Your task to perform on an android device: allow notifications from all sites in the chrome app Image 0: 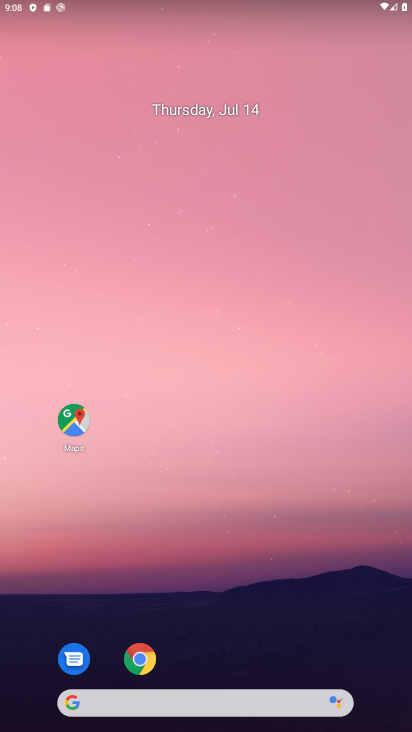
Step 0: drag from (262, 608) to (284, 61)
Your task to perform on an android device: allow notifications from all sites in the chrome app Image 1: 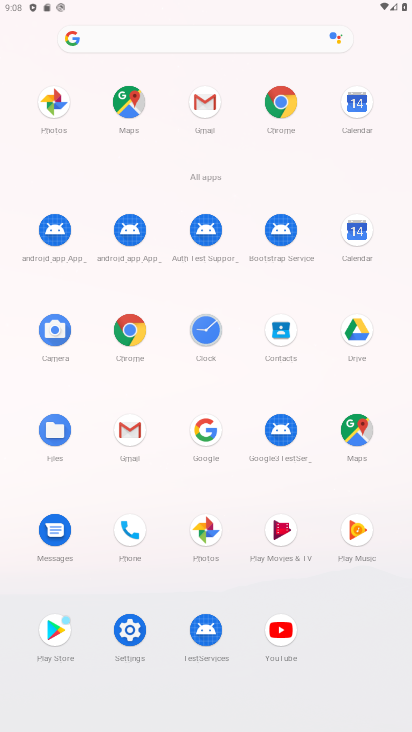
Step 1: click (267, 102)
Your task to perform on an android device: allow notifications from all sites in the chrome app Image 2: 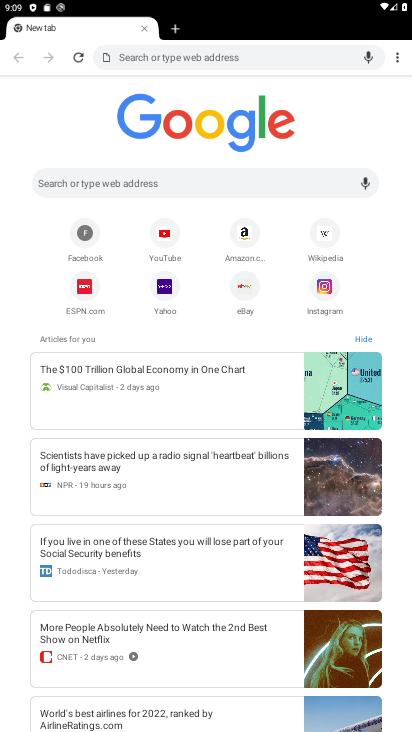
Step 2: click (400, 56)
Your task to perform on an android device: allow notifications from all sites in the chrome app Image 3: 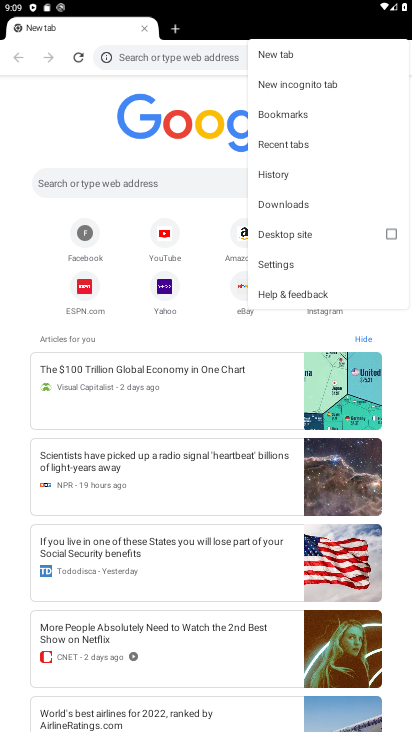
Step 3: click (301, 263)
Your task to perform on an android device: allow notifications from all sites in the chrome app Image 4: 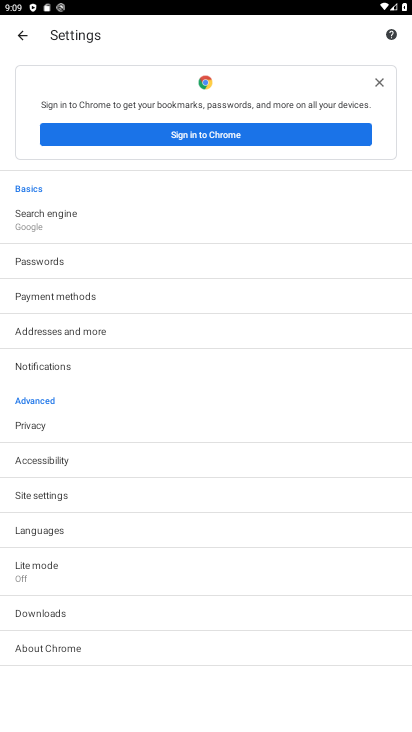
Step 4: click (75, 498)
Your task to perform on an android device: allow notifications from all sites in the chrome app Image 5: 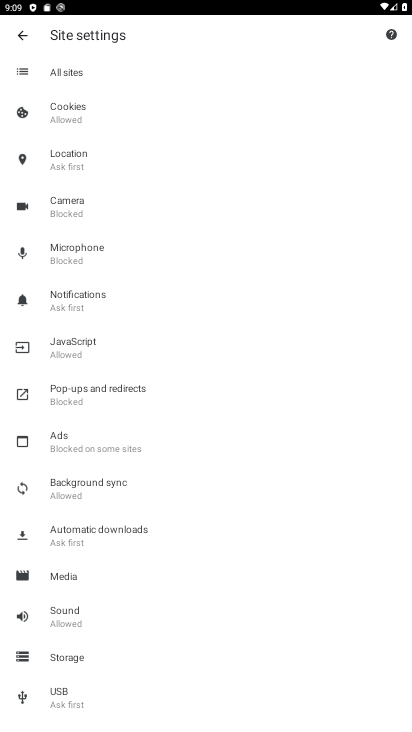
Step 5: click (85, 109)
Your task to perform on an android device: allow notifications from all sites in the chrome app Image 6: 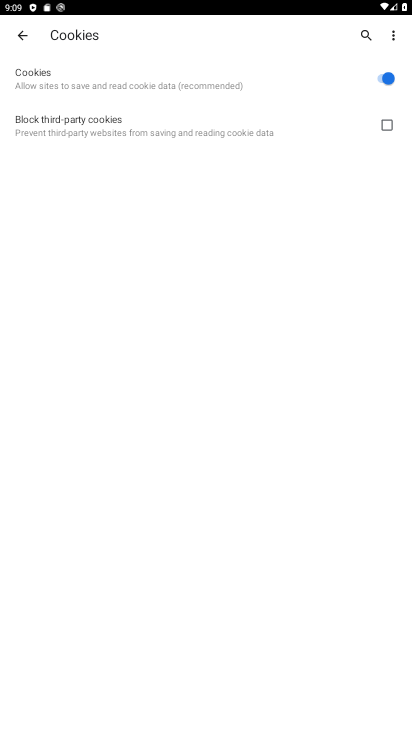
Step 6: click (20, 34)
Your task to perform on an android device: allow notifications from all sites in the chrome app Image 7: 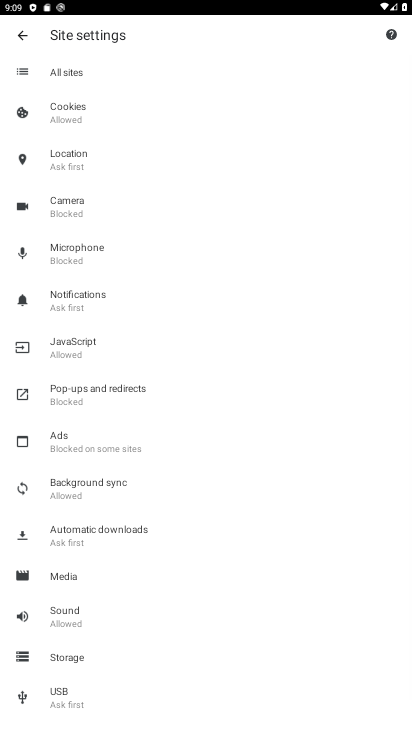
Step 7: click (73, 162)
Your task to perform on an android device: allow notifications from all sites in the chrome app Image 8: 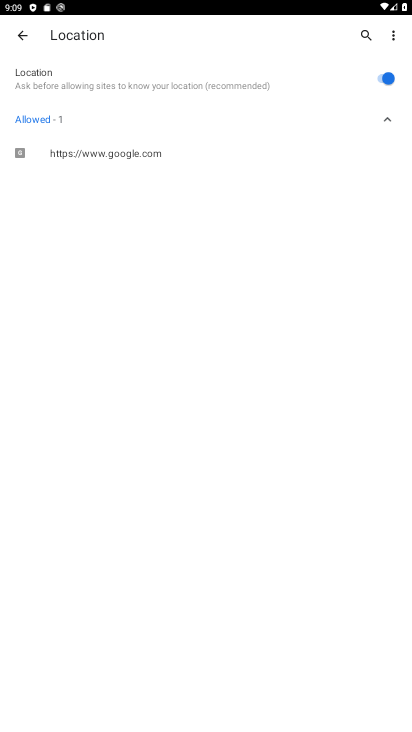
Step 8: click (29, 32)
Your task to perform on an android device: allow notifications from all sites in the chrome app Image 9: 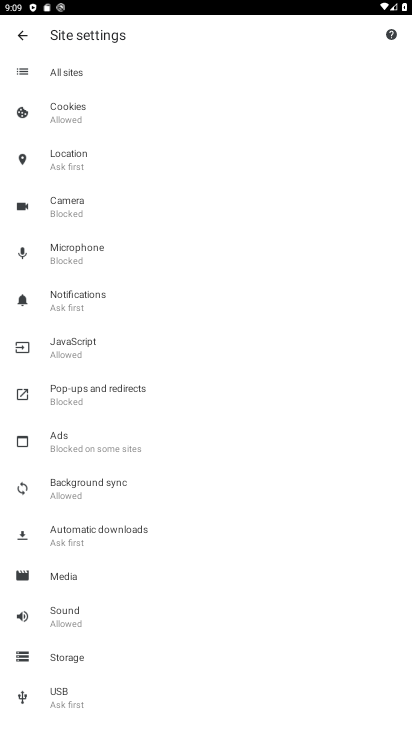
Step 9: click (81, 285)
Your task to perform on an android device: allow notifications from all sites in the chrome app Image 10: 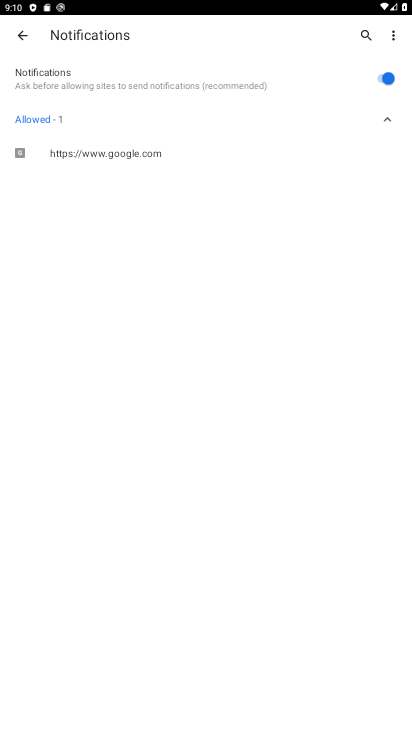
Step 10: click (15, 40)
Your task to perform on an android device: allow notifications from all sites in the chrome app Image 11: 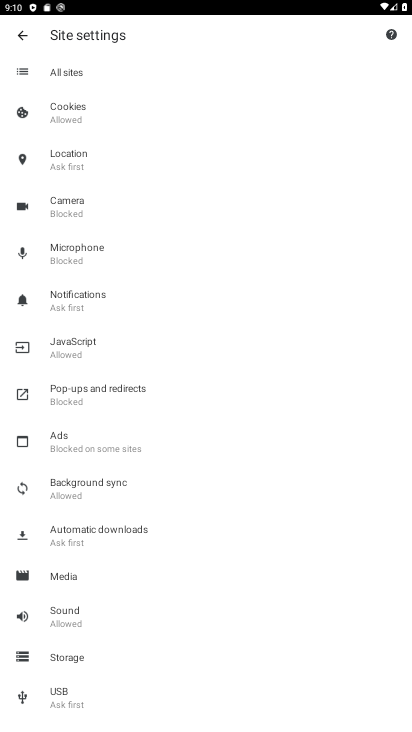
Step 11: task complete